Your task to perform on an android device: Go to Reddit.com Image 0: 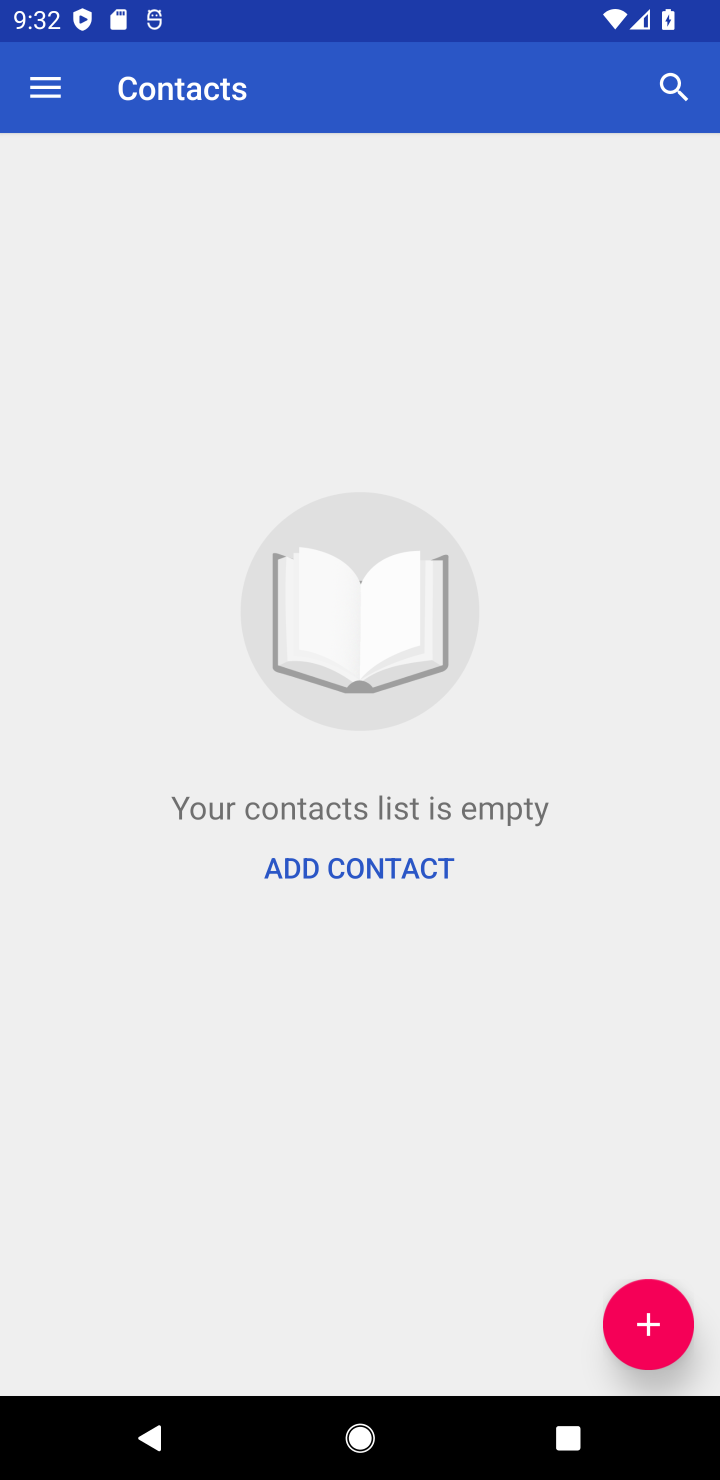
Step 0: press back button
Your task to perform on an android device: Go to Reddit.com Image 1: 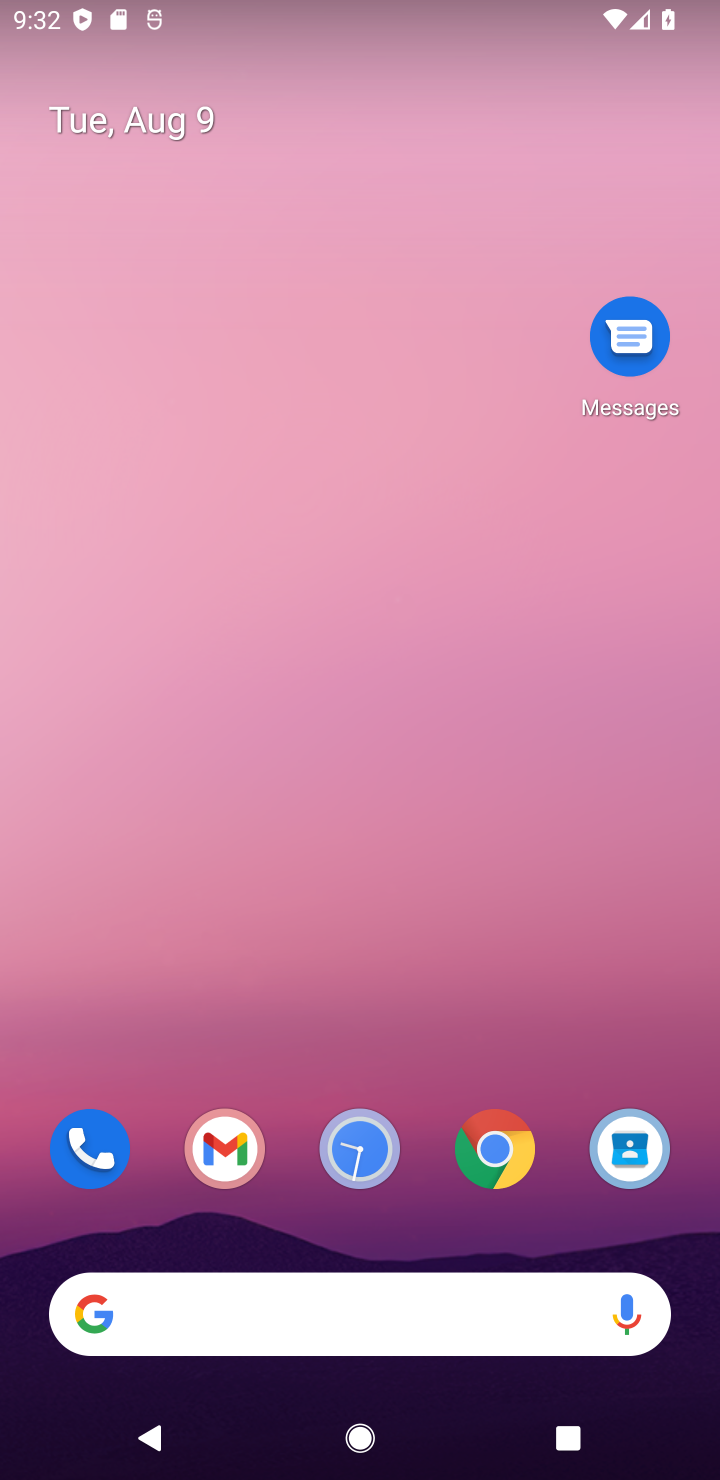
Step 1: click (493, 1141)
Your task to perform on an android device: Go to Reddit.com Image 2: 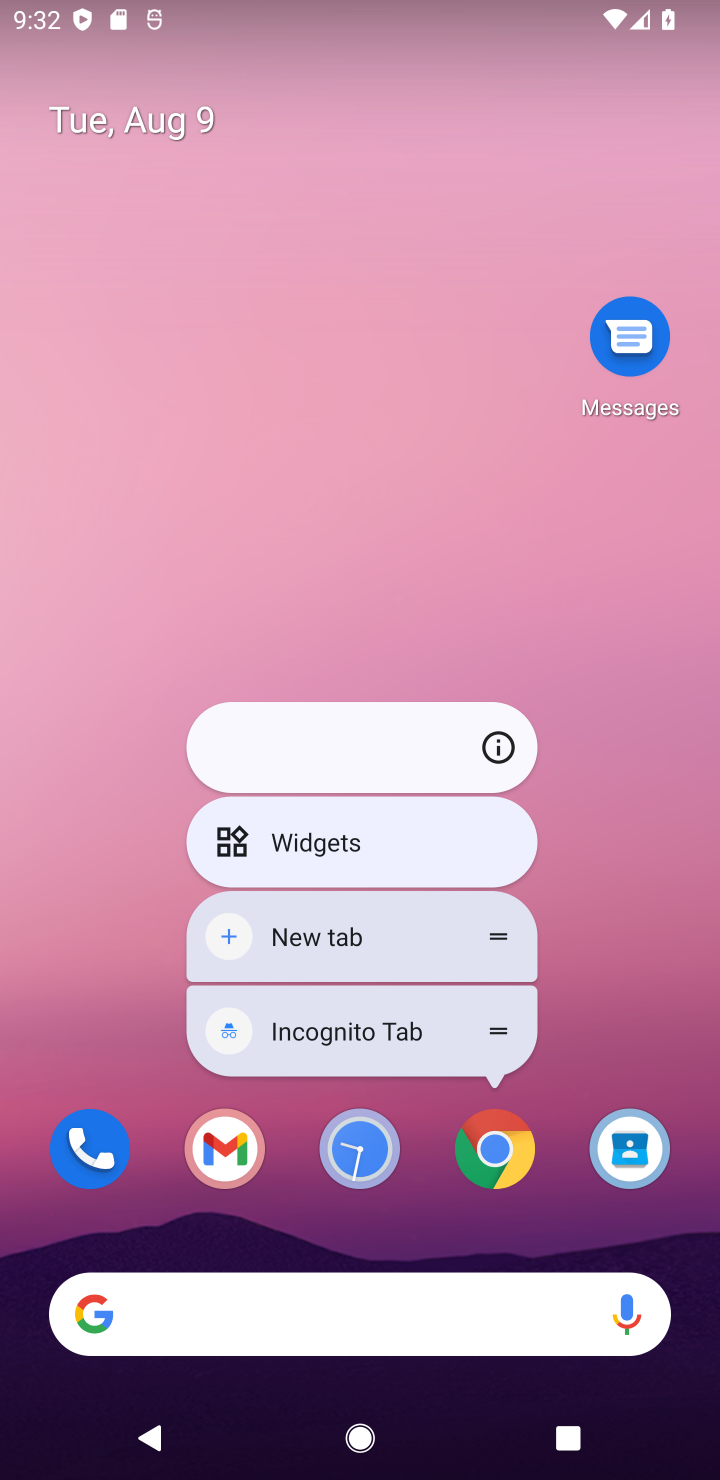
Step 2: click (513, 1149)
Your task to perform on an android device: Go to Reddit.com Image 3: 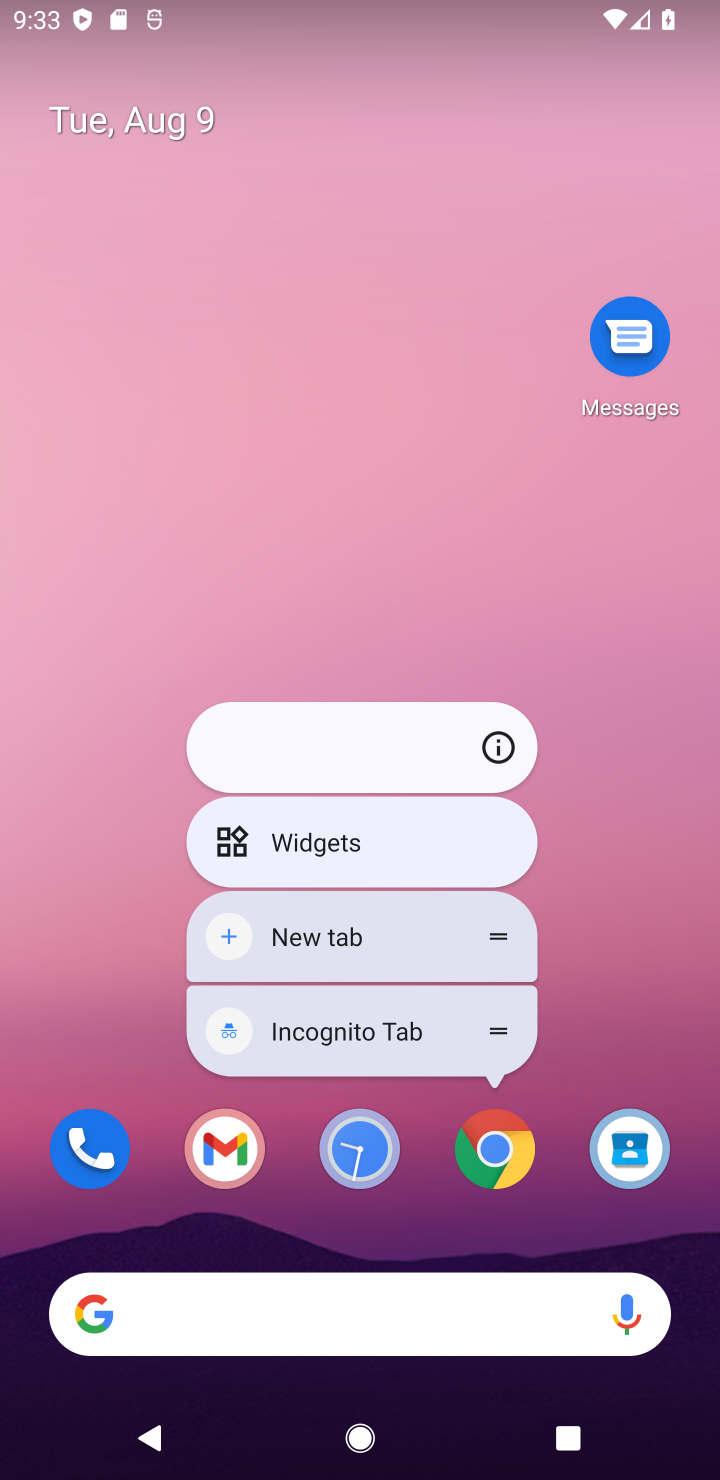
Step 3: click (503, 1155)
Your task to perform on an android device: Go to Reddit.com Image 4: 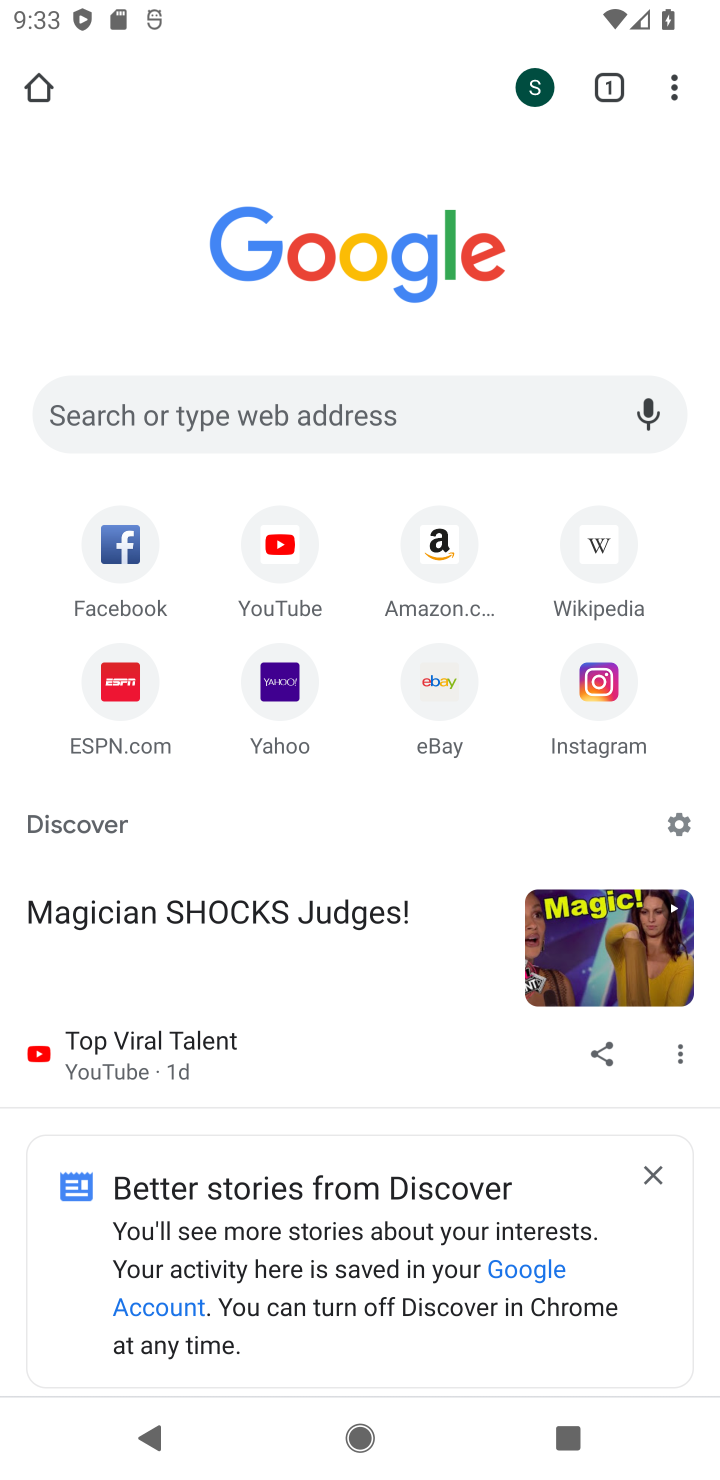
Step 4: click (251, 416)
Your task to perform on an android device: Go to Reddit.com Image 5: 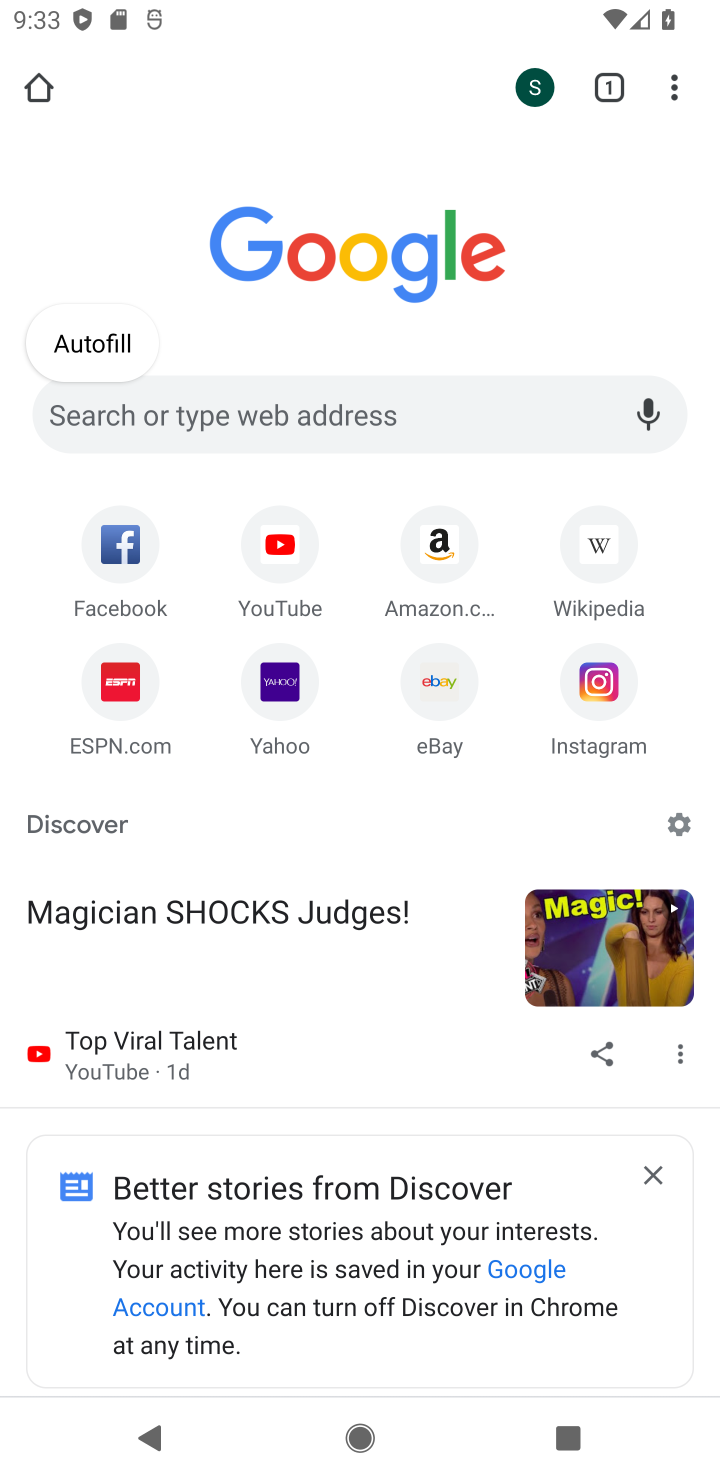
Step 5: type "reddit.com"
Your task to perform on an android device: Go to Reddit.com Image 6: 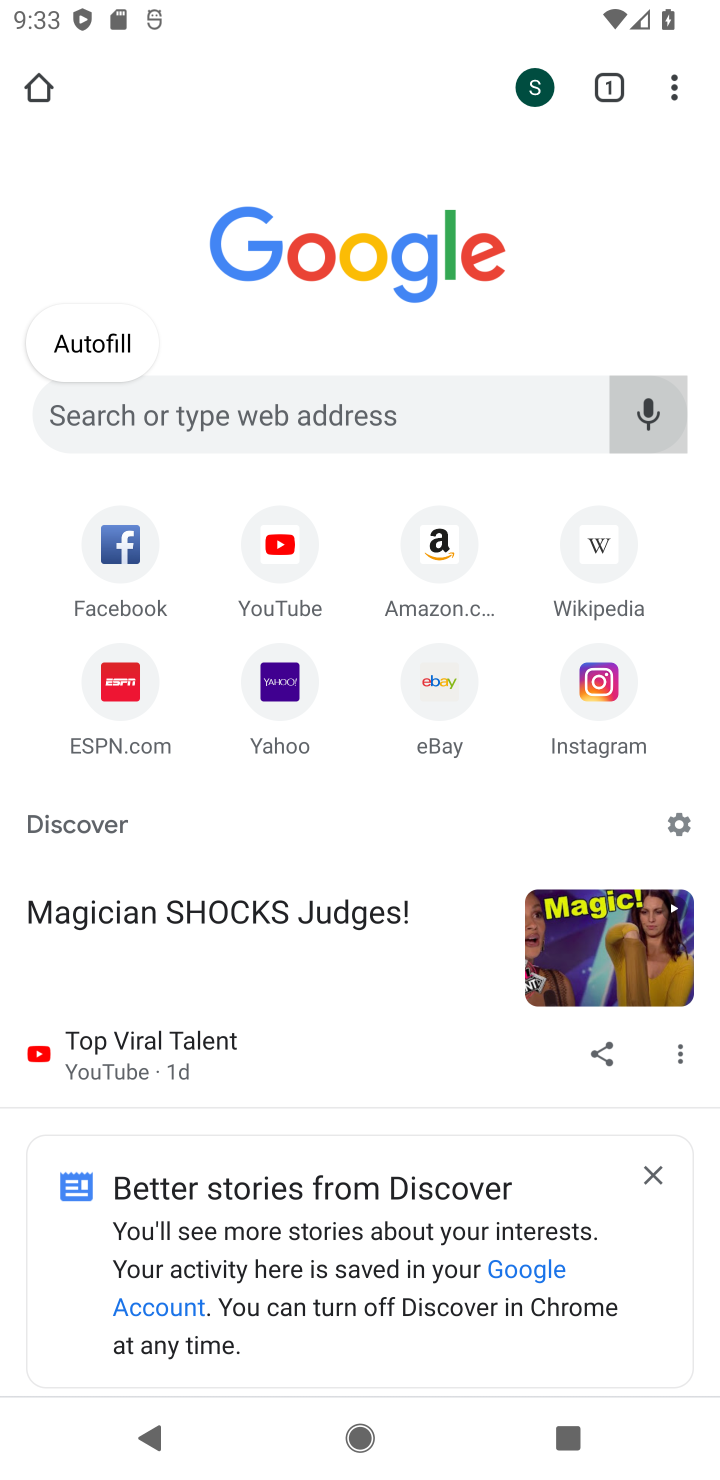
Step 6: click (216, 437)
Your task to perform on an android device: Go to Reddit.com Image 7: 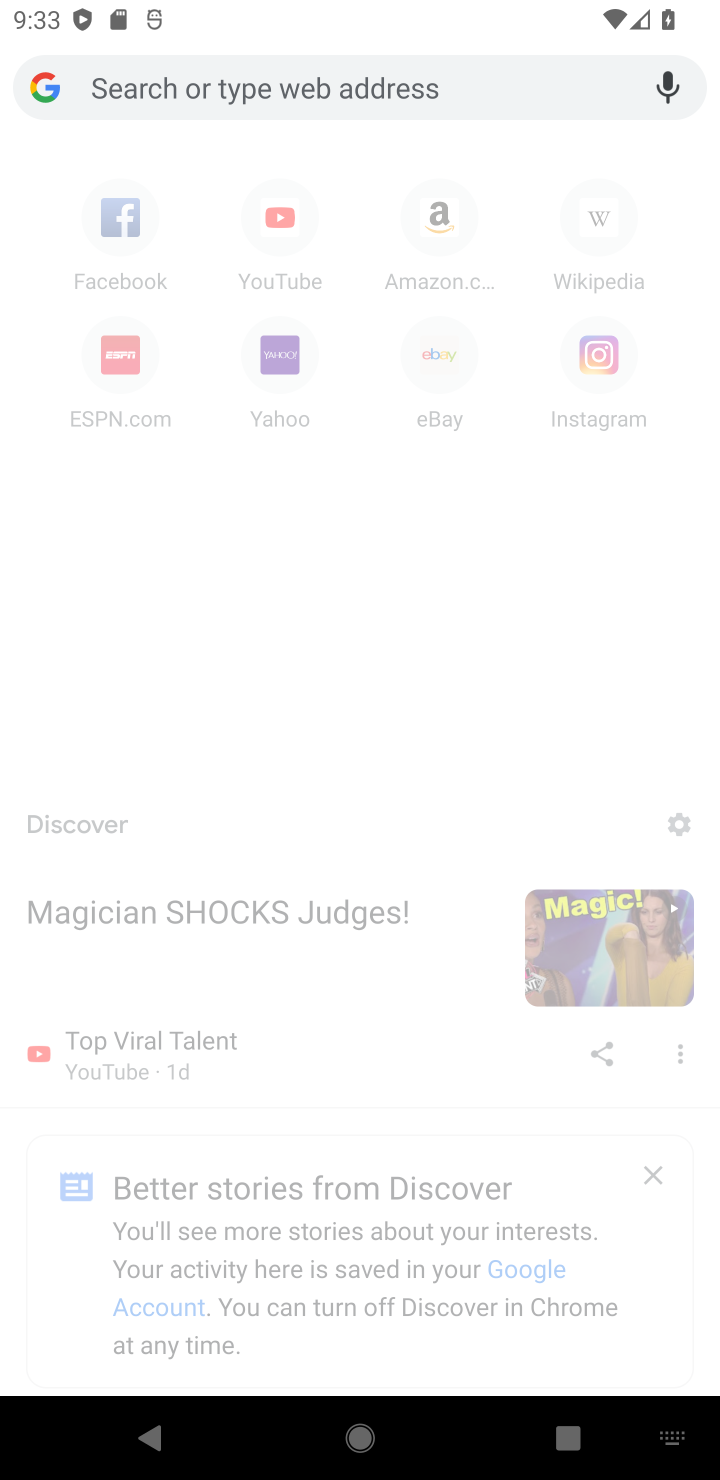
Step 7: type "reddit.com"
Your task to perform on an android device: Go to Reddit.com Image 8: 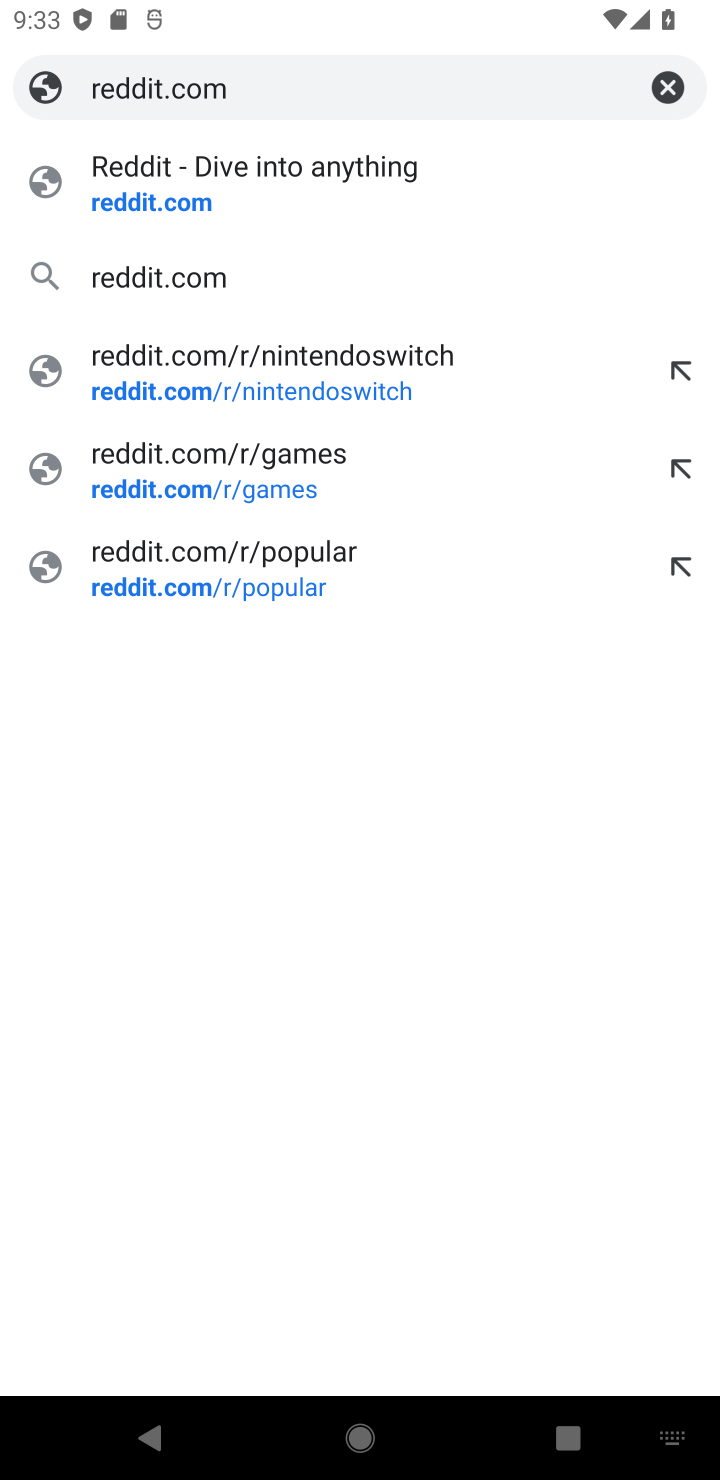
Step 8: click (187, 184)
Your task to perform on an android device: Go to Reddit.com Image 9: 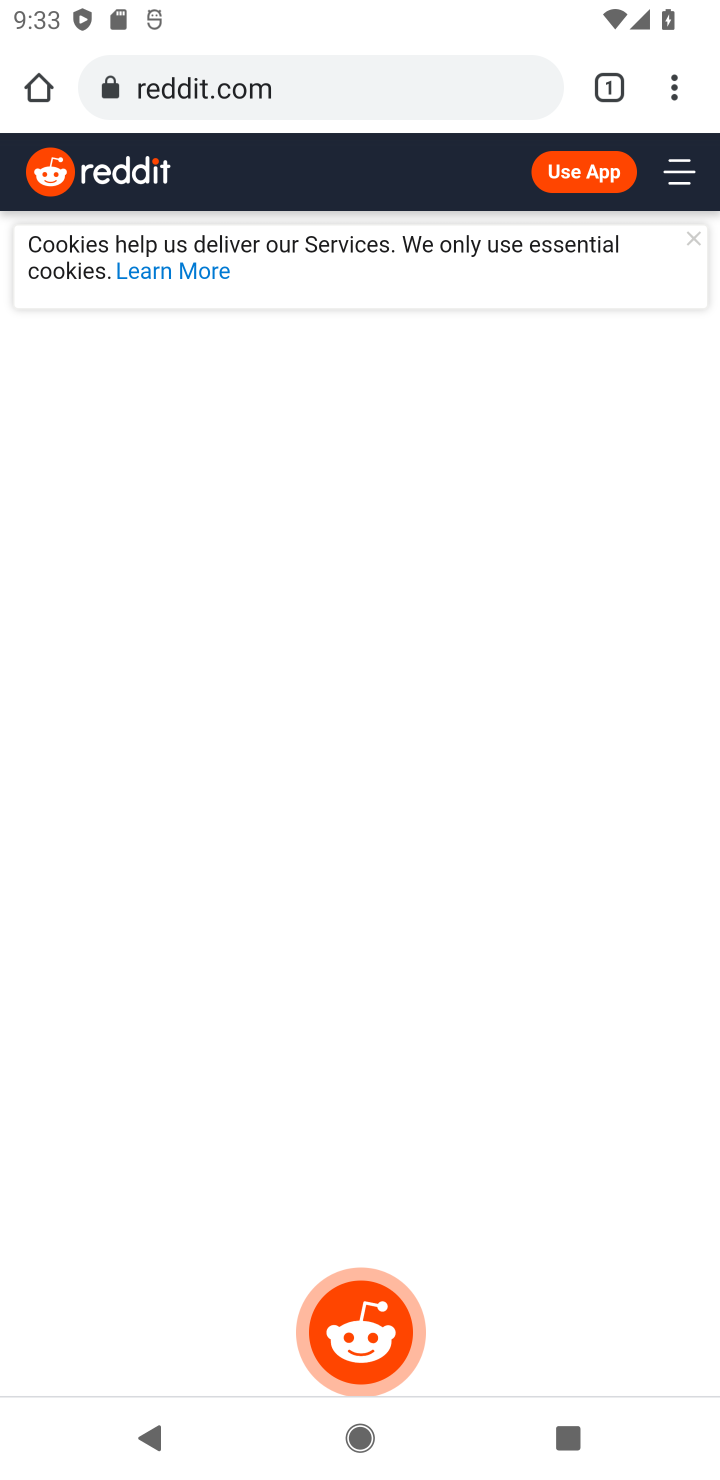
Step 9: task complete